Your task to perform on an android device: open sync settings in chrome Image 0: 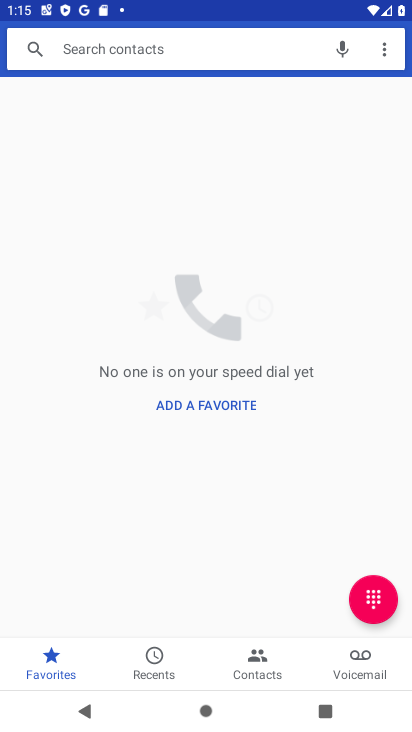
Step 0: press home button
Your task to perform on an android device: open sync settings in chrome Image 1: 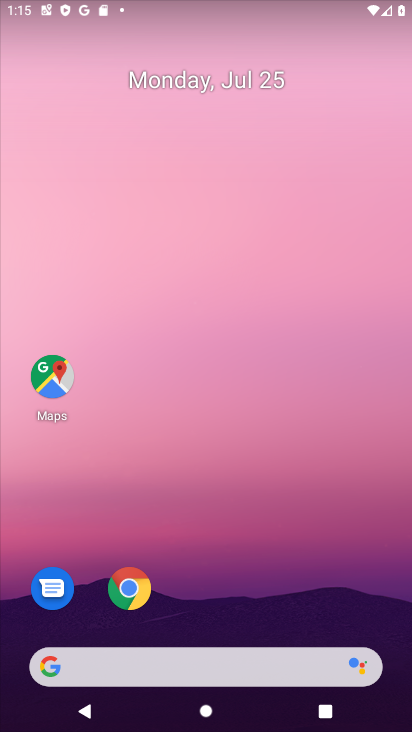
Step 1: click (126, 590)
Your task to perform on an android device: open sync settings in chrome Image 2: 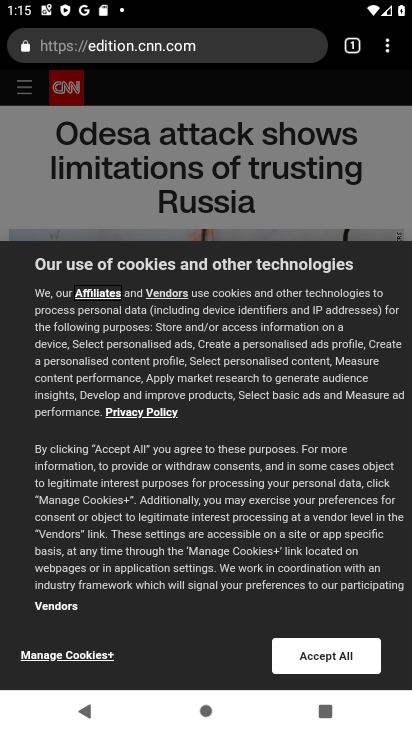
Step 2: click (382, 53)
Your task to perform on an android device: open sync settings in chrome Image 3: 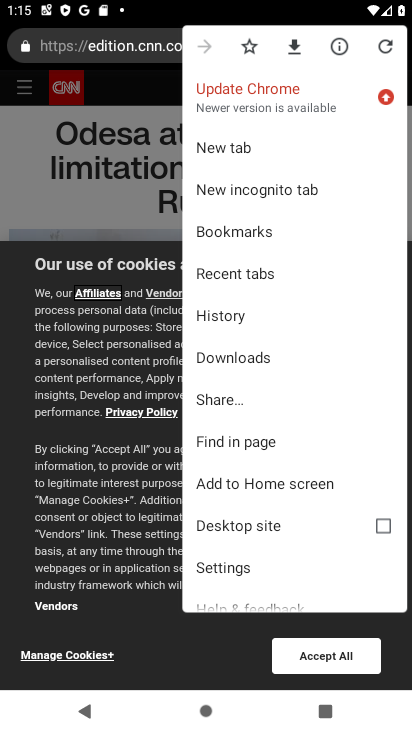
Step 3: click (224, 569)
Your task to perform on an android device: open sync settings in chrome Image 4: 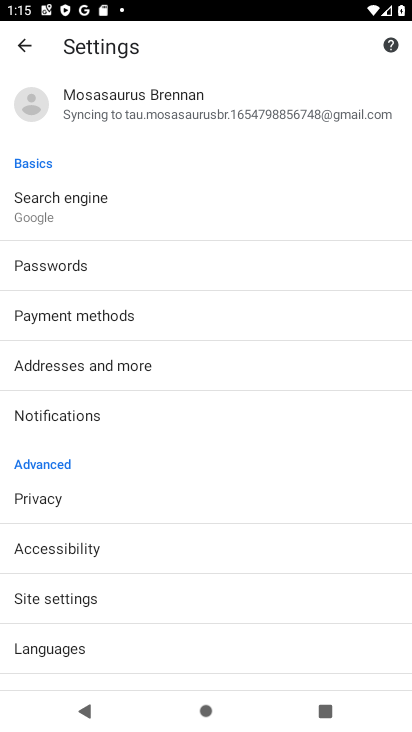
Step 4: click (118, 99)
Your task to perform on an android device: open sync settings in chrome Image 5: 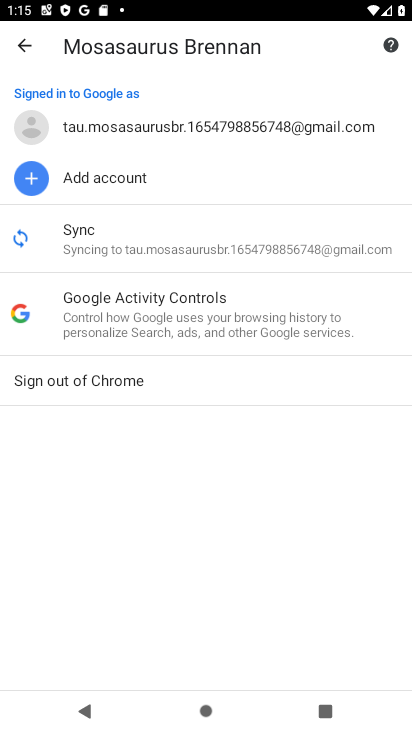
Step 5: click (244, 248)
Your task to perform on an android device: open sync settings in chrome Image 6: 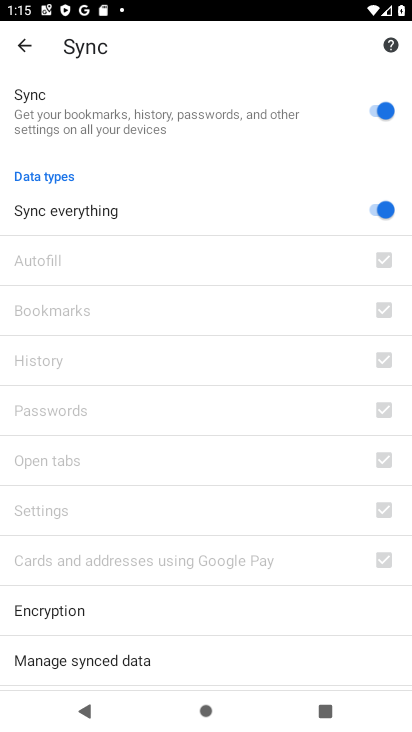
Step 6: task complete